Your task to perform on an android device: Open Android settings Image 0: 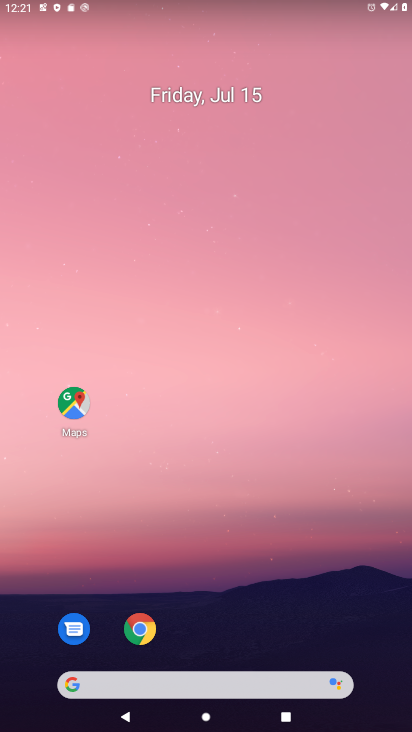
Step 0: press home button
Your task to perform on an android device: Open Android settings Image 1: 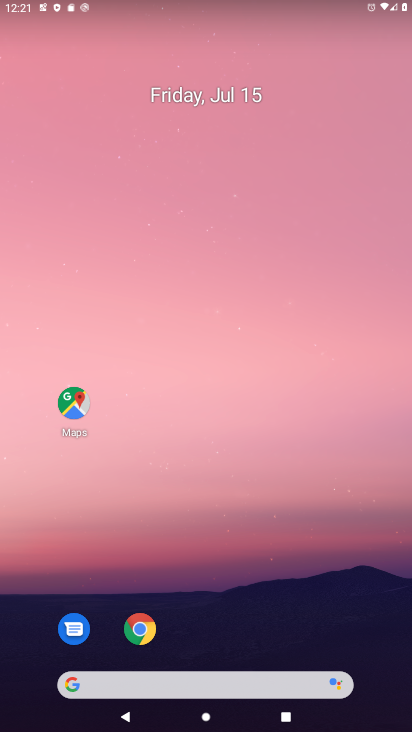
Step 1: drag from (212, 624) to (199, 36)
Your task to perform on an android device: Open Android settings Image 2: 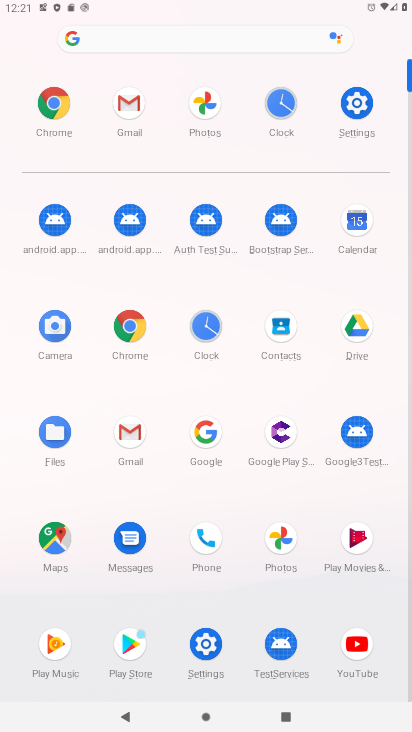
Step 2: click (360, 106)
Your task to perform on an android device: Open Android settings Image 3: 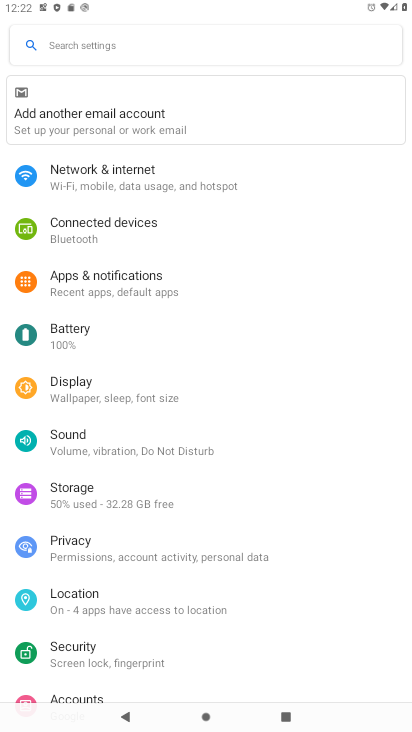
Step 3: task complete